Your task to perform on an android device: What's on my calendar tomorrow? Image 0: 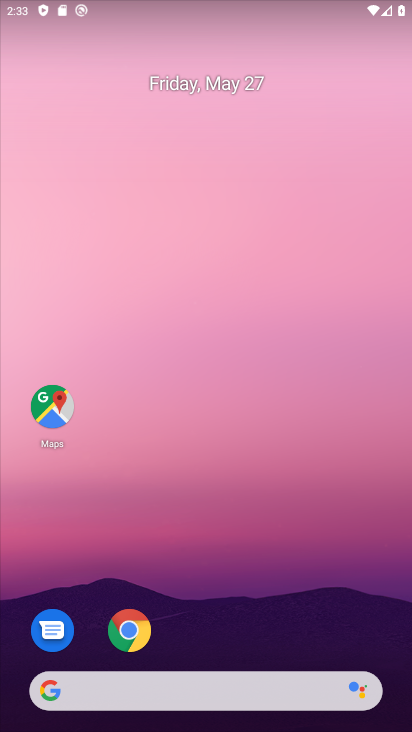
Step 0: drag from (174, 672) to (79, 84)
Your task to perform on an android device: What's on my calendar tomorrow? Image 1: 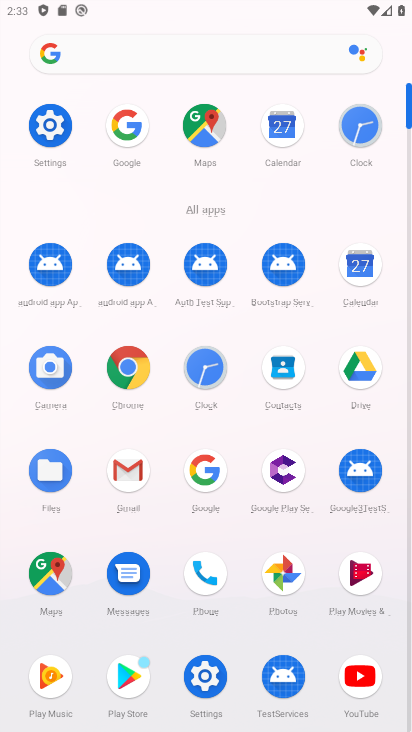
Step 1: click (362, 266)
Your task to perform on an android device: What's on my calendar tomorrow? Image 2: 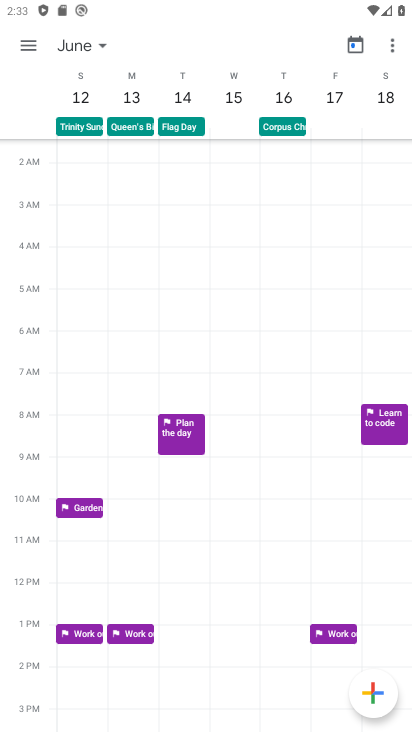
Step 2: click (34, 42)
Your task to perform on an android device: What's on my calendar tomorrow? Image 3: 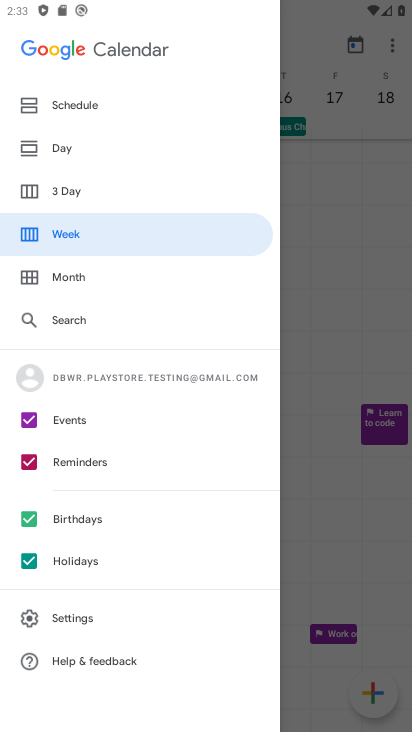
Step 3: click (79, 141)
Your task to perform on an android device: What's on my calendar tomorrow? Image 4: 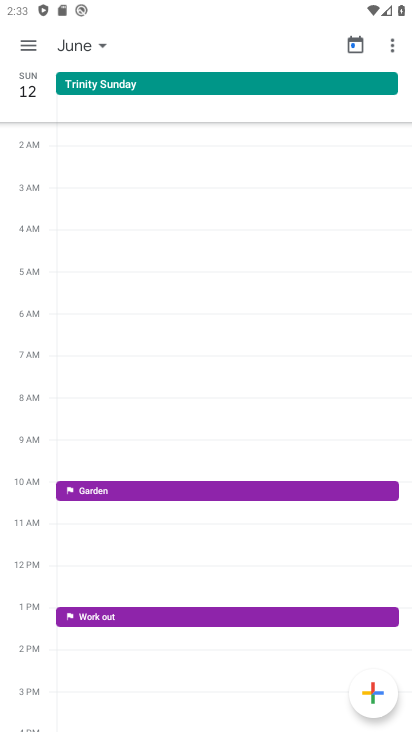
Step 4: click (24, 42)
Your task to perform on an android device: What's on my calendar tomorrow? Image 5: 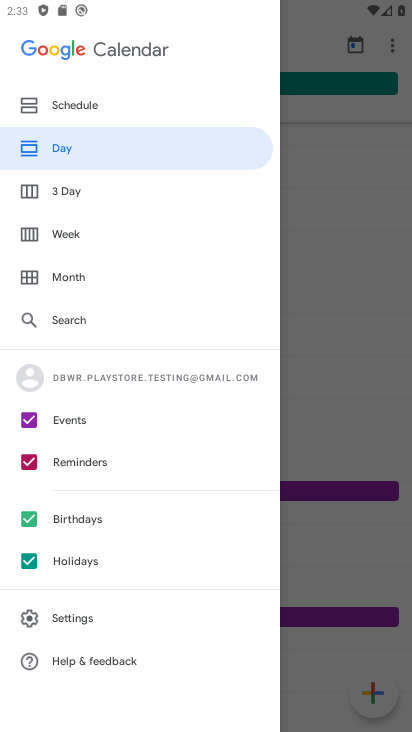
Step 5: click (80, 184)
Your task to perform on an android device: What's on my calendar tomorrow? Image 6: 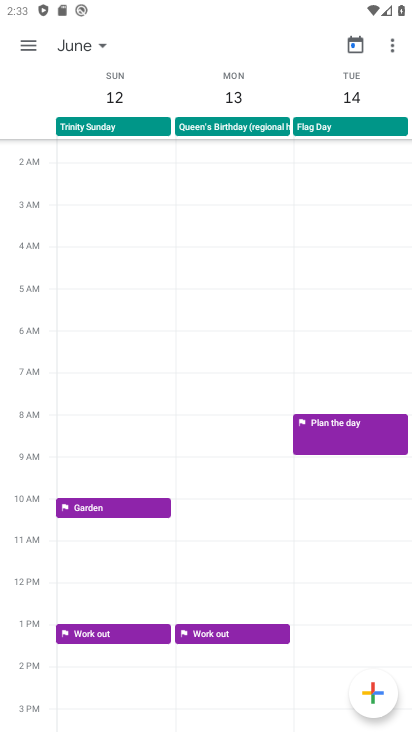
Step 6: drag from (116, 92) to (341, 91)
Your task to perform on an android device: What's on my calendar tomorrow? Image 7: 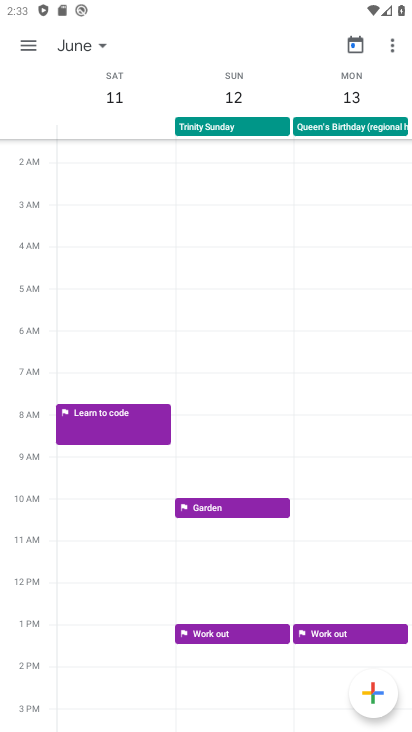
Step 7: click (362, 41)
Your task to perform on an android device: What's on my calendar tomorrow? Image 8: 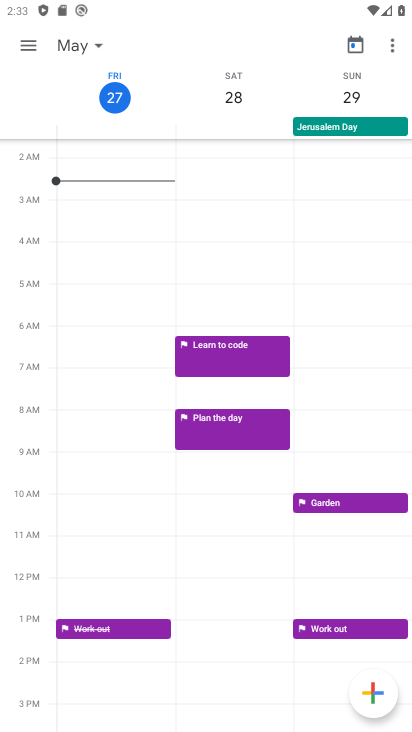
Step 8: click (219, 94)
Your task to perform on an android device: What's on my calendar tomorrow? Image 9: 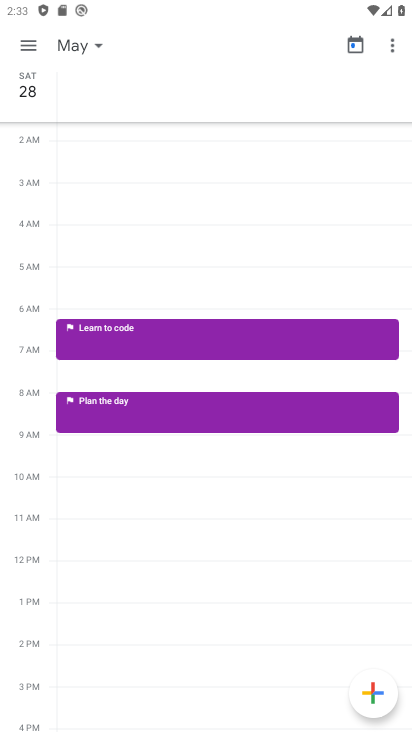
Step 9: task complete